Your task to perform on an android device: Open Google Maps and go to "Timeline" Image 0: 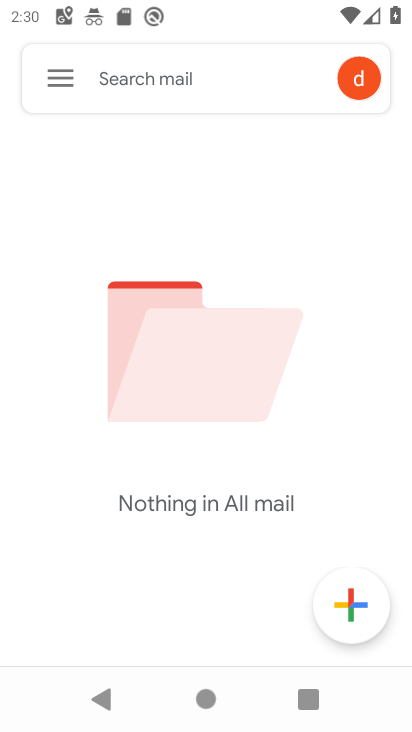
Step 0: press home button
Your task to perform on an android device: Open Google Maps and go to "Timeline" Image 1: 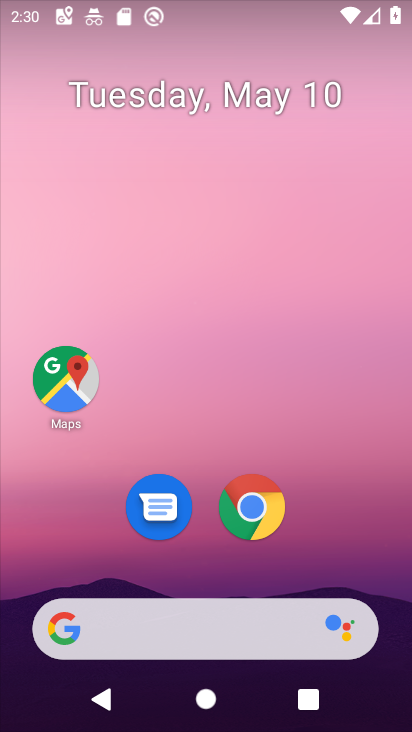
Step 1: click (62, 367)
Your task to perform on an android device: Open Google Maps and go to "Timeline" Image 2: 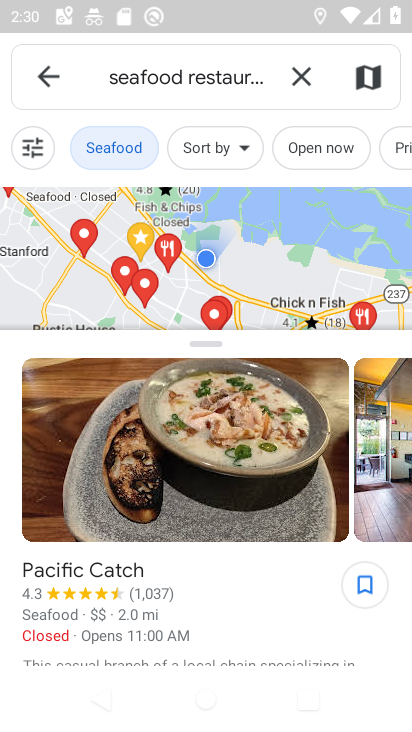
Step 2: click (57, 77)
Your task to perform on an android device: Open Google Maps and go to "Timeline" Image 3: 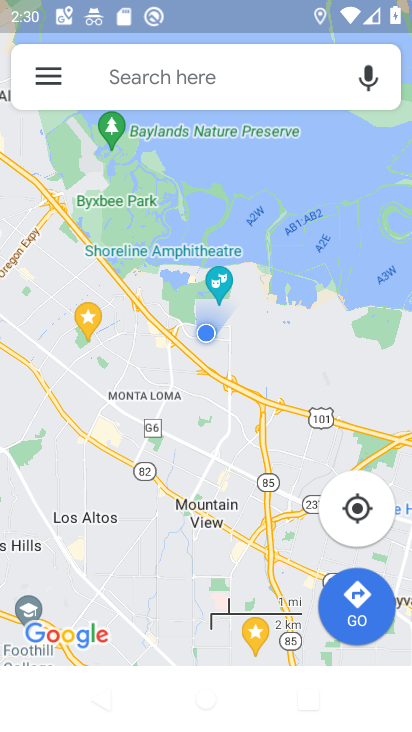
Step 3: click (56, 76)
Your task to perform on an android device: Open Google Maps and go to "Timeline" Image 4: 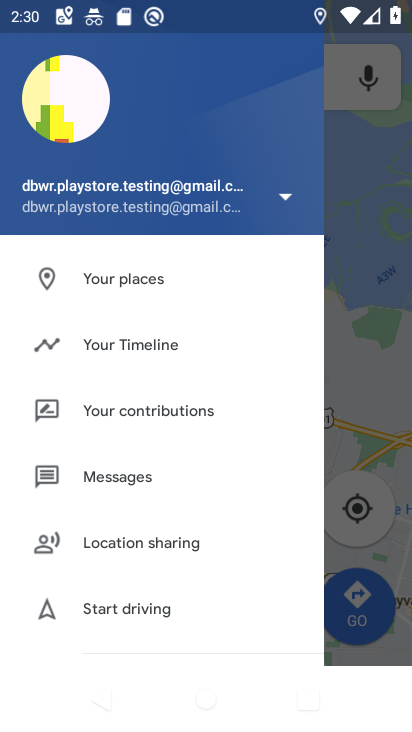
Step 4: click (119, 344)
Your task to perform on an android device: Open Google Maps and go to "Timeline" Image 5: 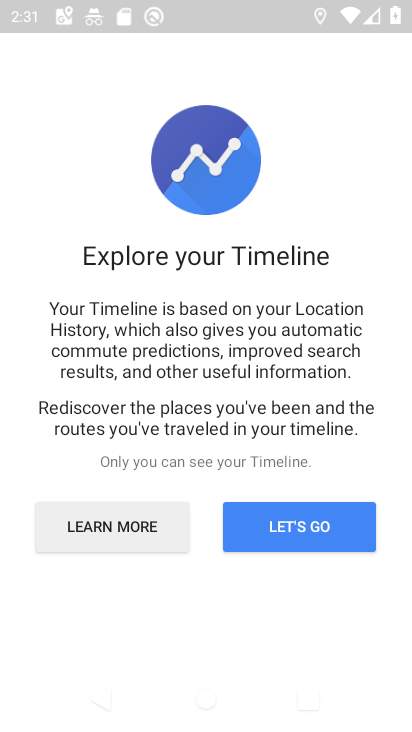
Step 5: task complete